Your task to perform on an android device: Open calendar and show me the fourth week of next month Image 0: 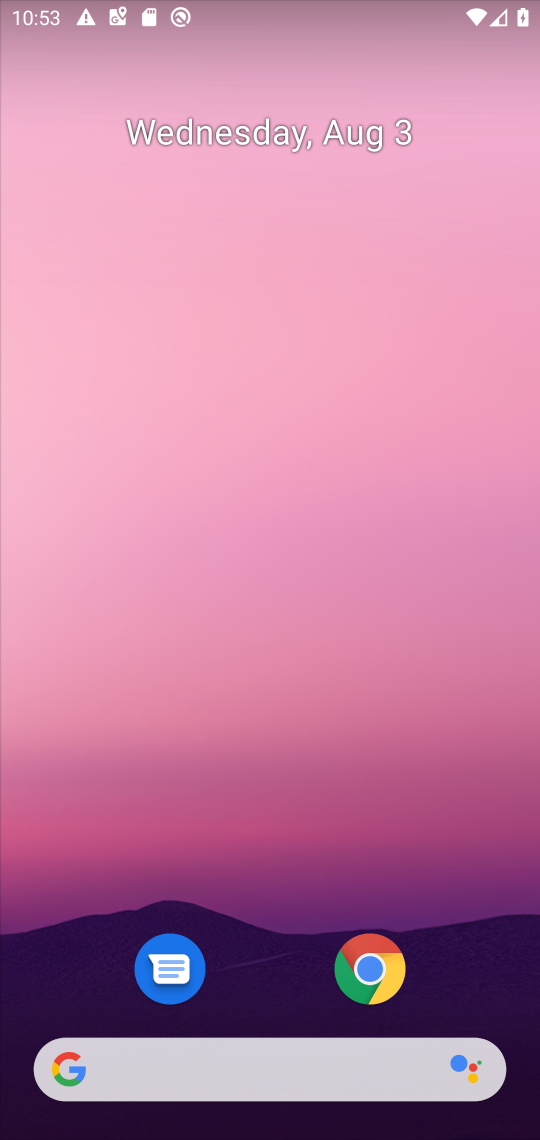
Step 0: drag from (294, 1017) to (176, 235)
Your task to perform on an android device: Open calendar and show me the fourth week of next month Image 1: 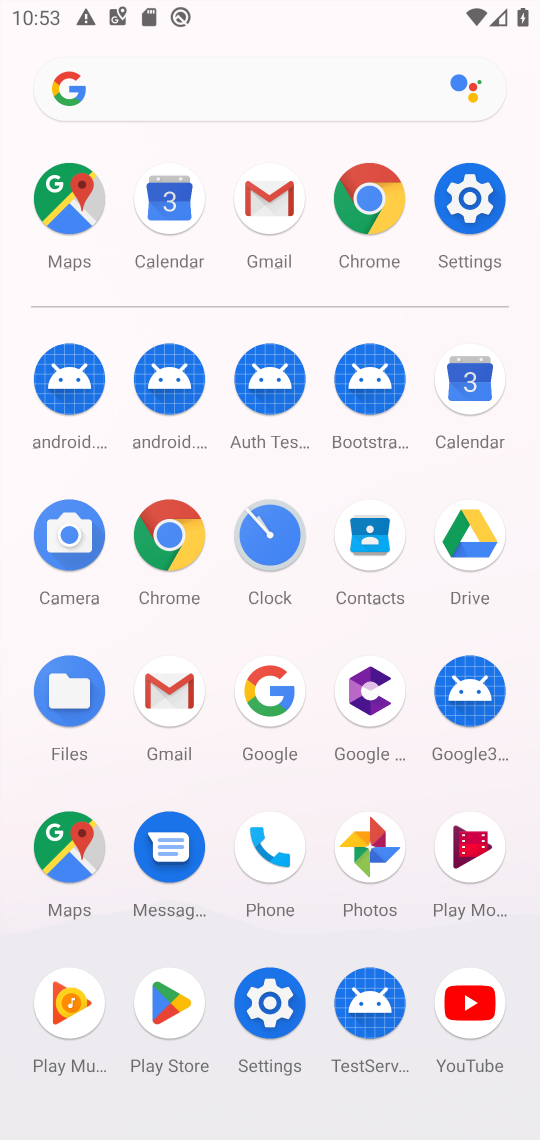
Step 1: click (455, 398)
Your task to perform on an android device: Open calendar and show me the fourth week of next month Image 2: 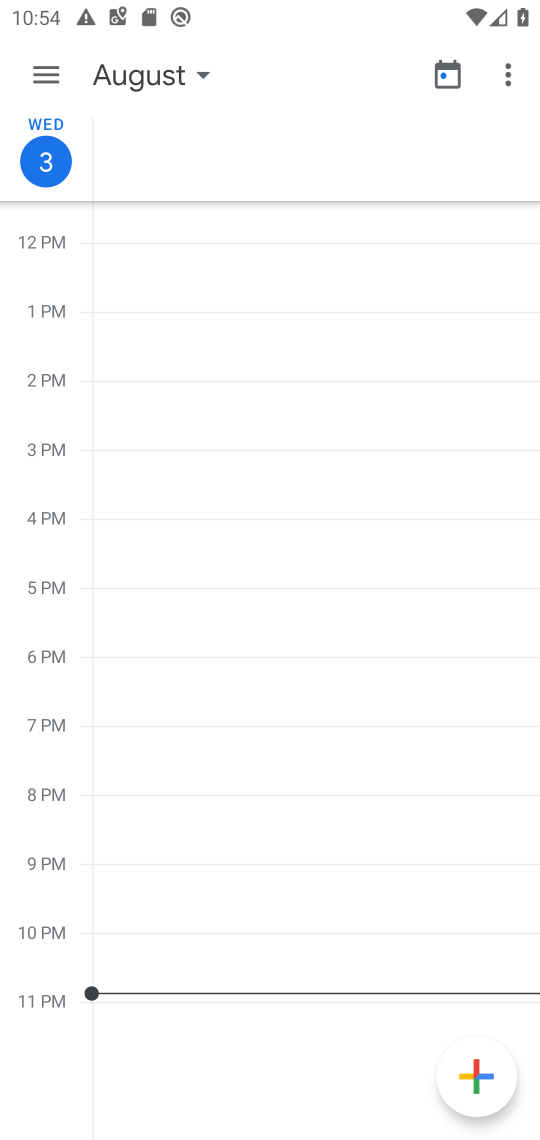
Step 2: click (37, 80)
Your task to perform on an android device: Open calendar and show me the fourth week of next month Image 3: 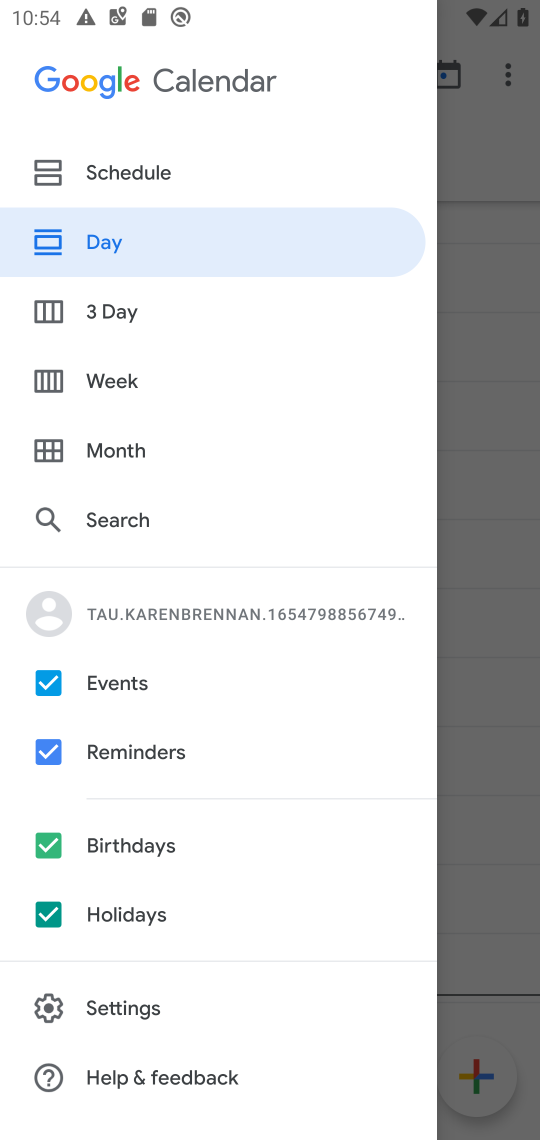
Step 3: click (99, 372)
Your task to perform on an android device: Open calendar and show me the fourth week of next month Image 4: 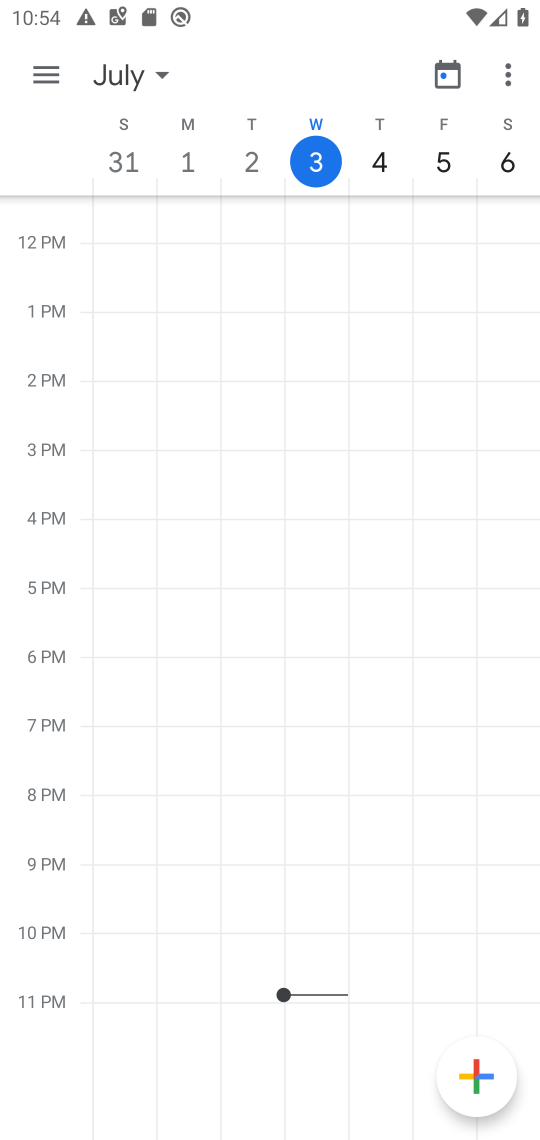
Step 4: task complete